Your task to perform on an android device: Open Chrome and go to the settings page Image 0: 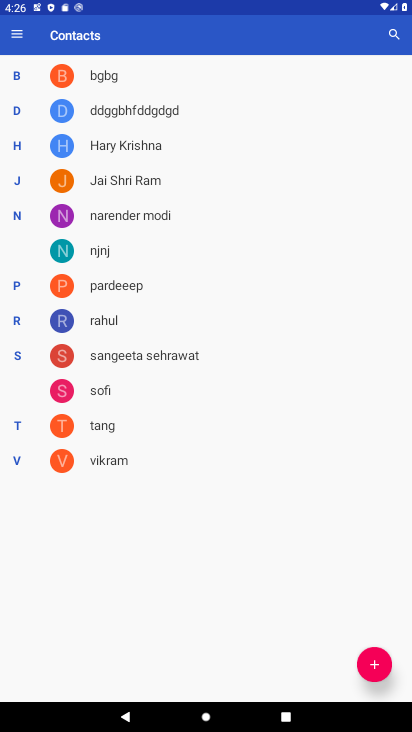
Step 0: press home button
Your task to perform on an android device: Open Chrome and go to the settings page Image 1: 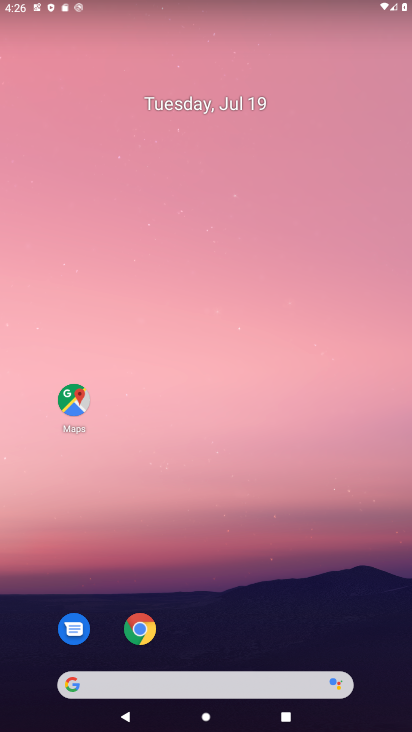
Step 1: drag from (153, 644) to (203, 293)
Your task to perform on an android device: Open Chrome and go to the settings page Image 2: 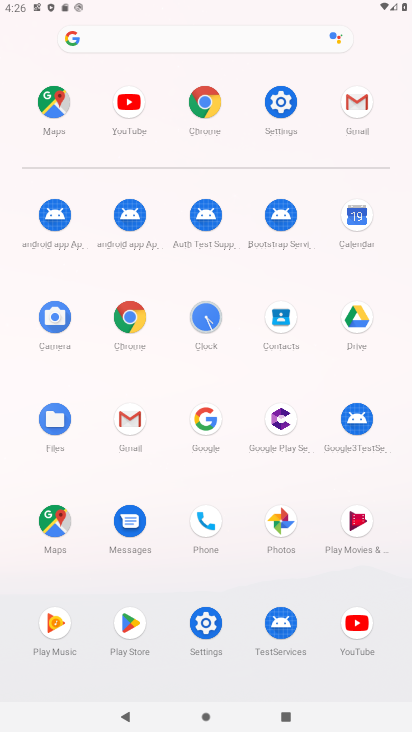
Step 2: click (126, 324)
Your task to perform on an android device: Open Chrome and go to the settings page Image 3: 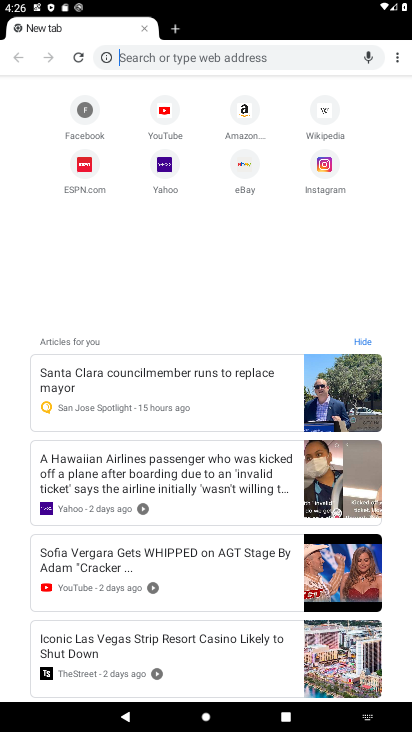
Step 3: click (395, 58)
Your task to perform on an android device: Open Chrome and go to the settings page Image 4: 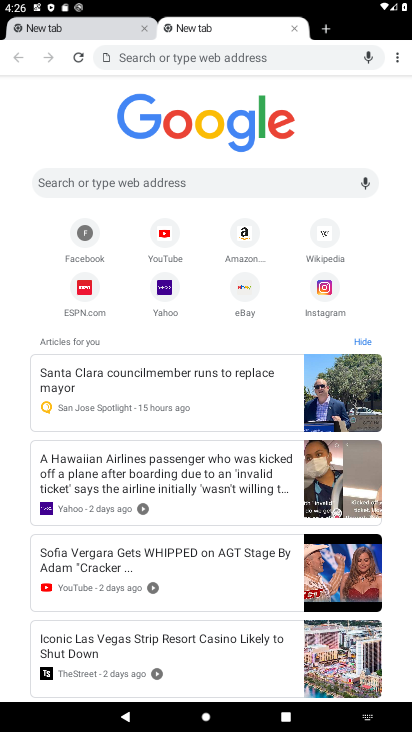
Step 4: click (395, 61)
Your task to perform on an android device: Open Chrome and go to the settings page Image 5: 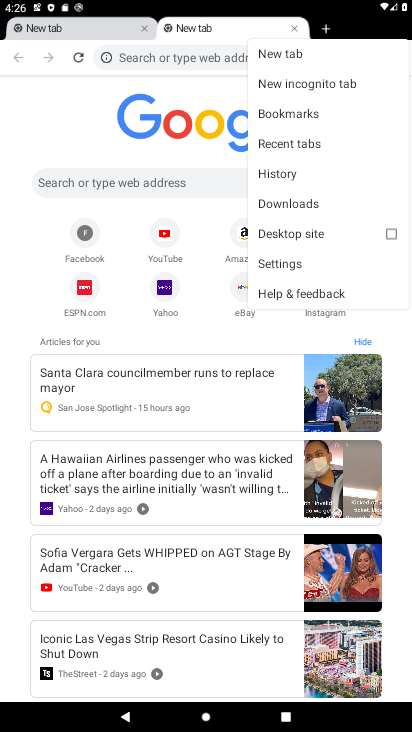
Step 5: click (281, 261)
Your task to perform on an android device: Open Chrome and go to the settings page Image 6: 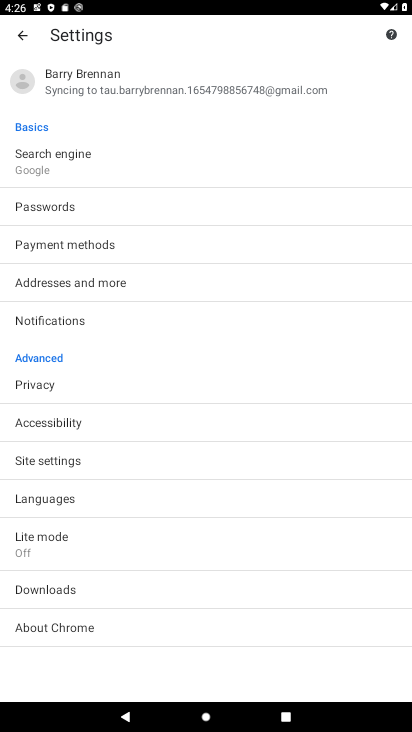
Step 6: task complete